Your task to perform on an android device: Search for usb-a to usb-b on amazon, select the first entry, add it to the cart, then select checkout. Image 0: 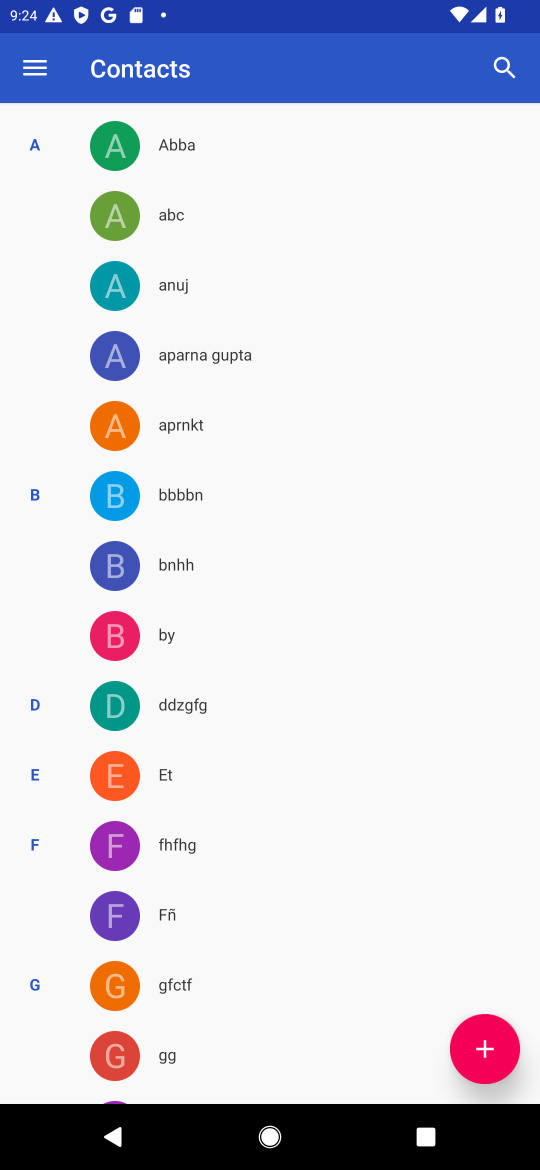
Step 0: press home button
Your task to perform on an android device: Search for usb-a to usb-b on amazon, select the first entry, add it to the cart, then select checkout. Image 1: 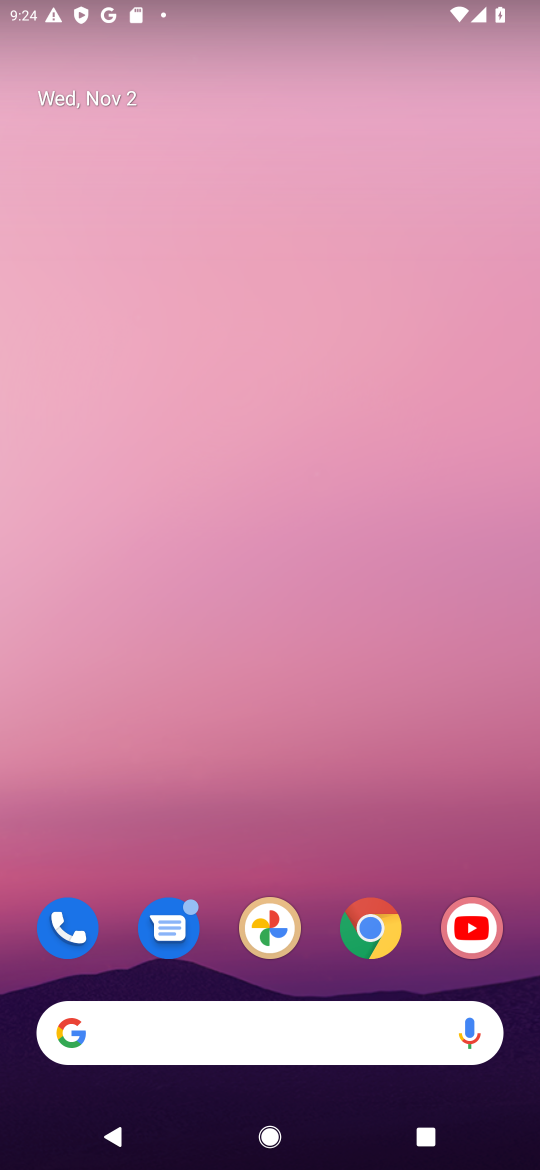
Step 1: click (381, 935)
Your task to perform on an android device: Search for usb-a to usb-b on amazon, select the first entry, add it to the cart, then select checkout. Image 2: 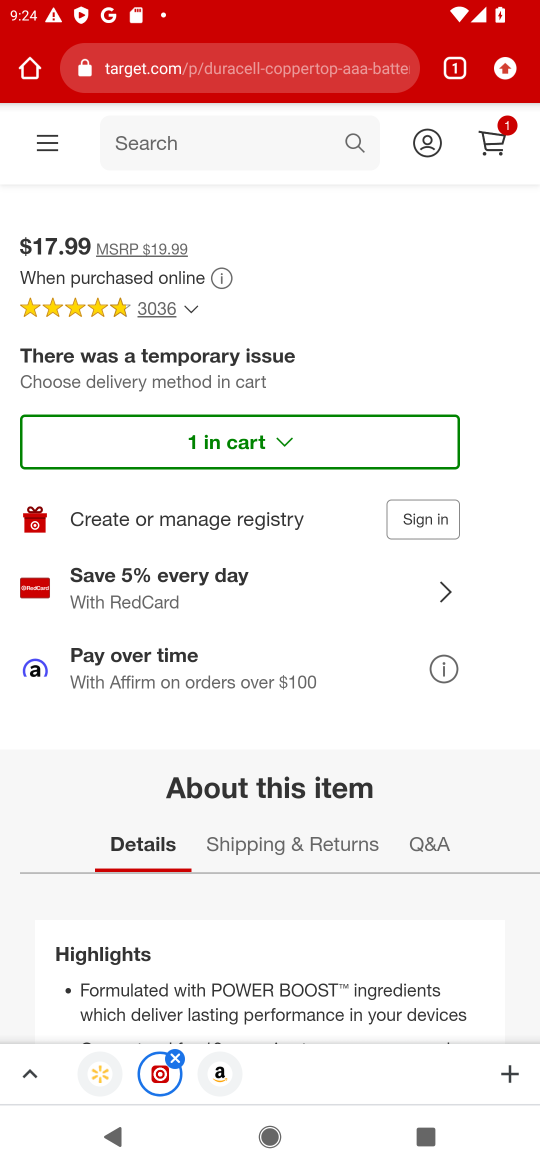
Step 2: click (140, 85)
Your task to perform on an android device: Search for usb-a to usb-b on amazon, select the first entry, add it to the cart, then select checkout. Image 3: 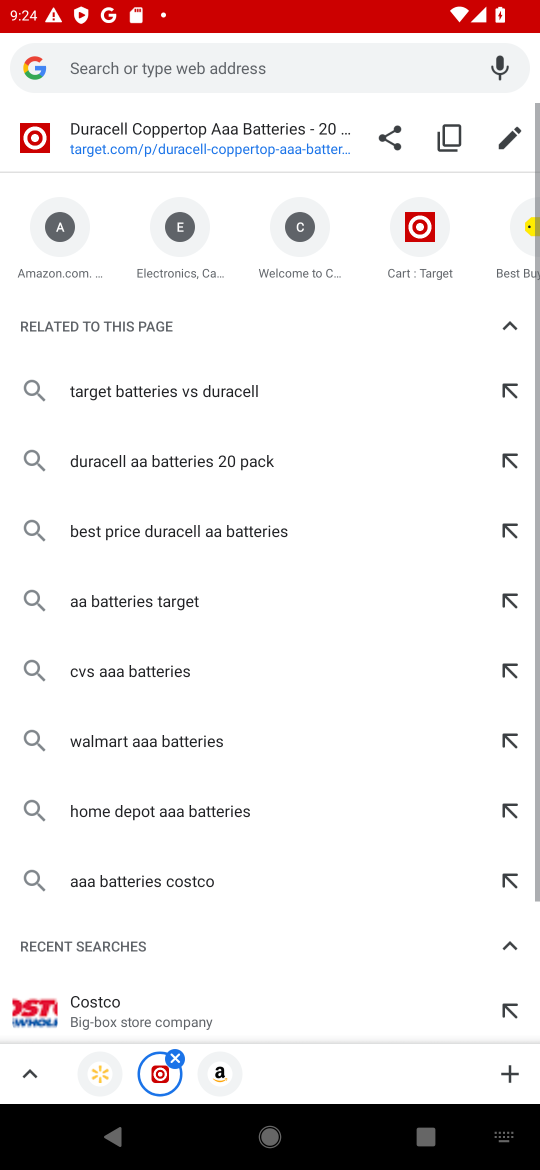
Step 3: type "amazon"
Your task to perform on an android device: Search for usb-a to usb-b on amazon, select the first entry, add it to the cart, then select checkout. Image 4: 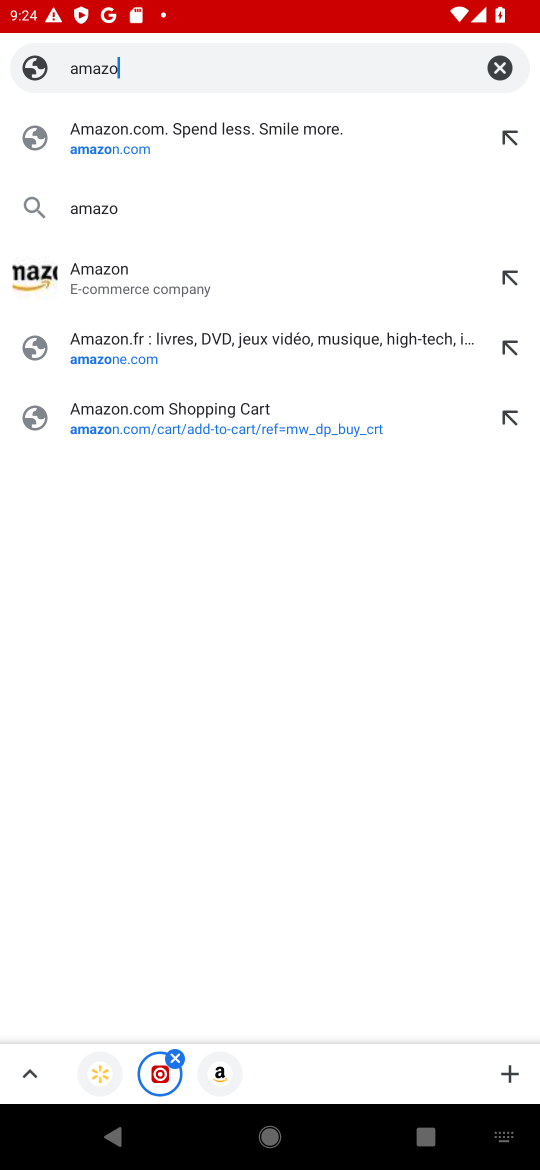
Step 4: type ""
Your task to perform on an android device: Search for usb-a to usb-b on amazon, select the first entry, add it to the cart, then select checkout. Image 5: 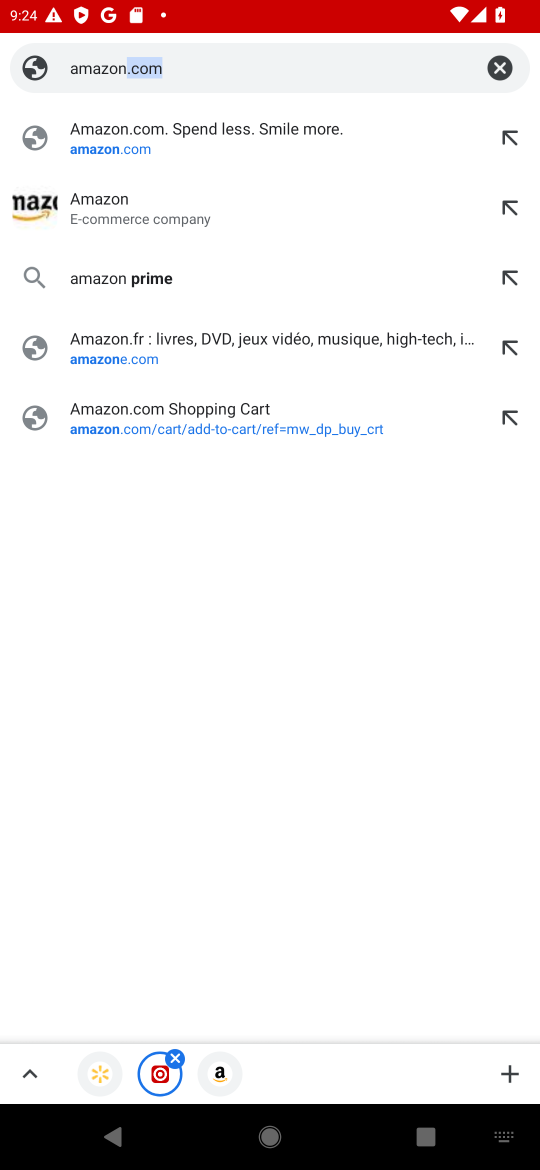
Step 5: click (235, 126)
Your task to perform on an android device: Search for usb-a to usb-b on amazon, select the first entry, add it to the cart, then select checkout. Image 6: 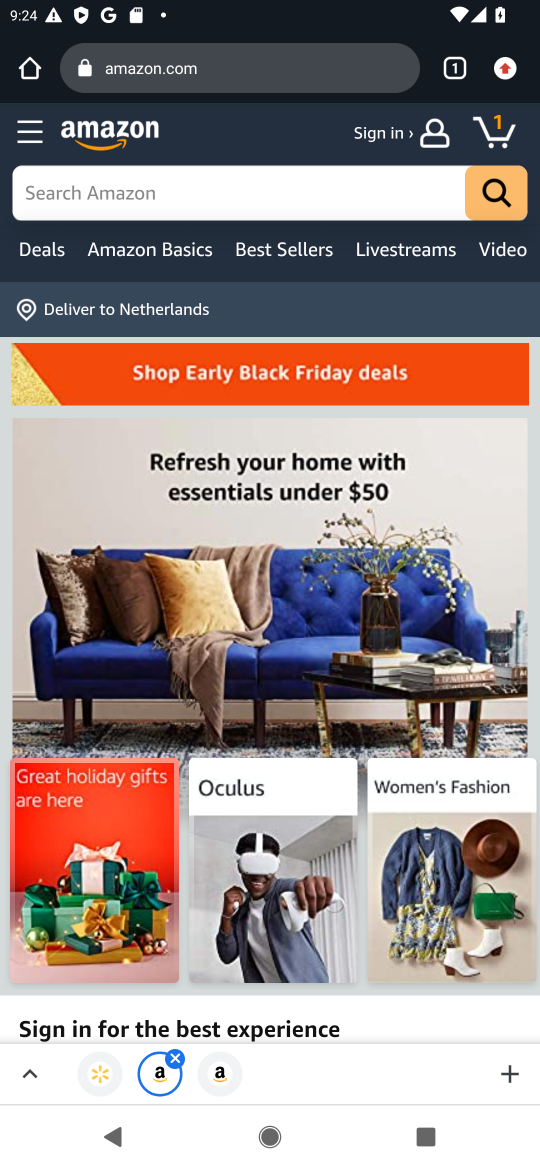
Step 6: click (245, 193)
Your task to perform on an android device: Search for usb-a to usb-b on amazon, select the first entry, add it to the cart, then select checkout. Image 7: 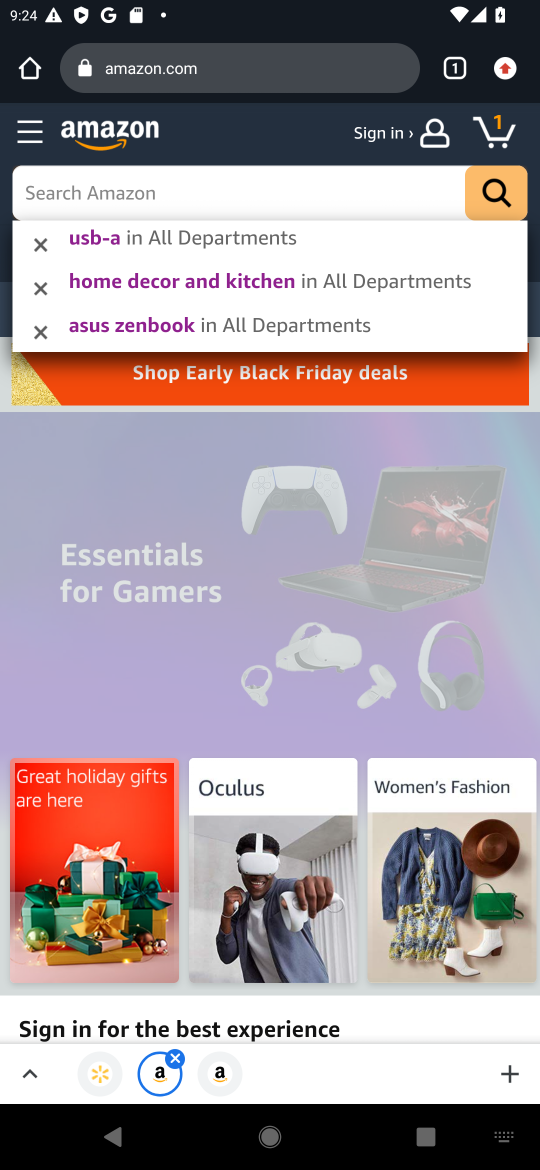
Step 7: type "usb-a to usb-b"
Your task to perform on an android device: Search for usb-a to usb-b on amazon, select the first entry, add it to the cart, then select checkout. Image 8: 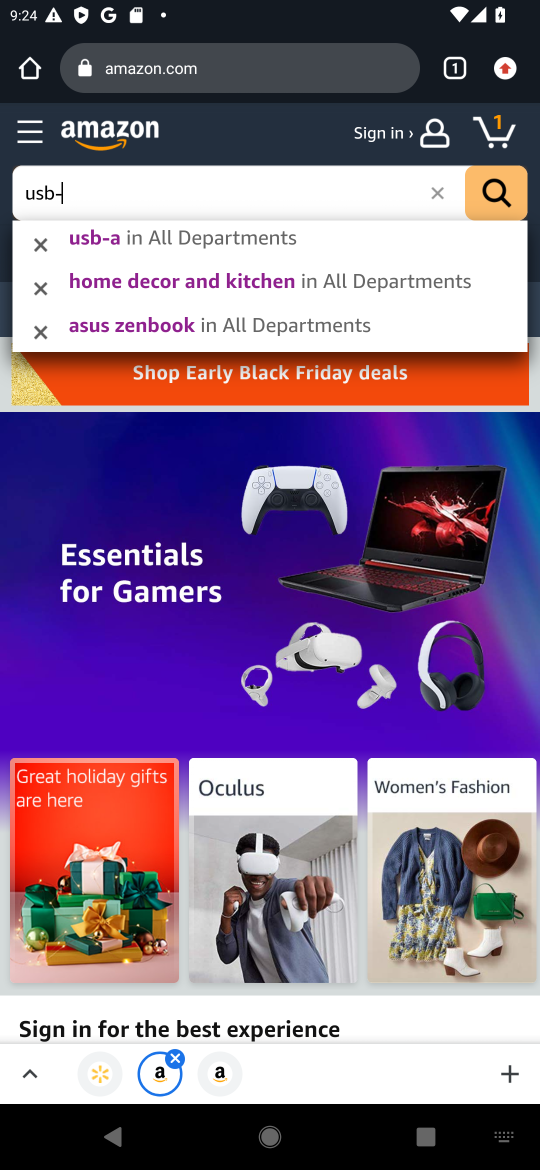
Step 8: type ""
Your task to perform on an android device: Search for usb-a to usb-b on amazon, select the first entry, add it to the cart, then select checkout. Image 9: 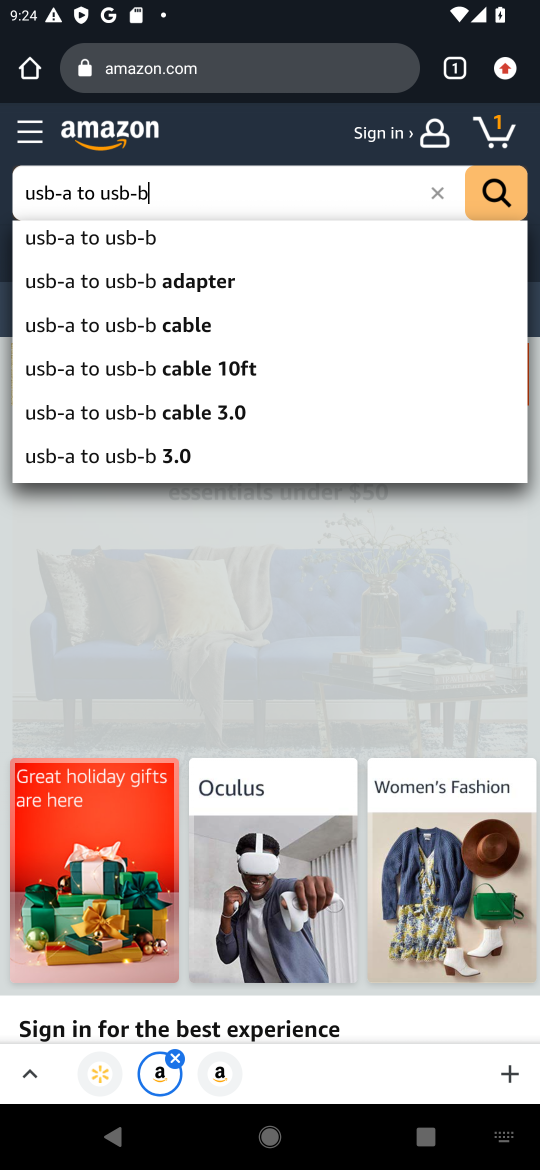
Step 9: click (515, 210)
Your task to perform on an android device: Search for usb-a to usb-b on amazon, select the first entry, add it to the cart, then select checkout. Image 10: 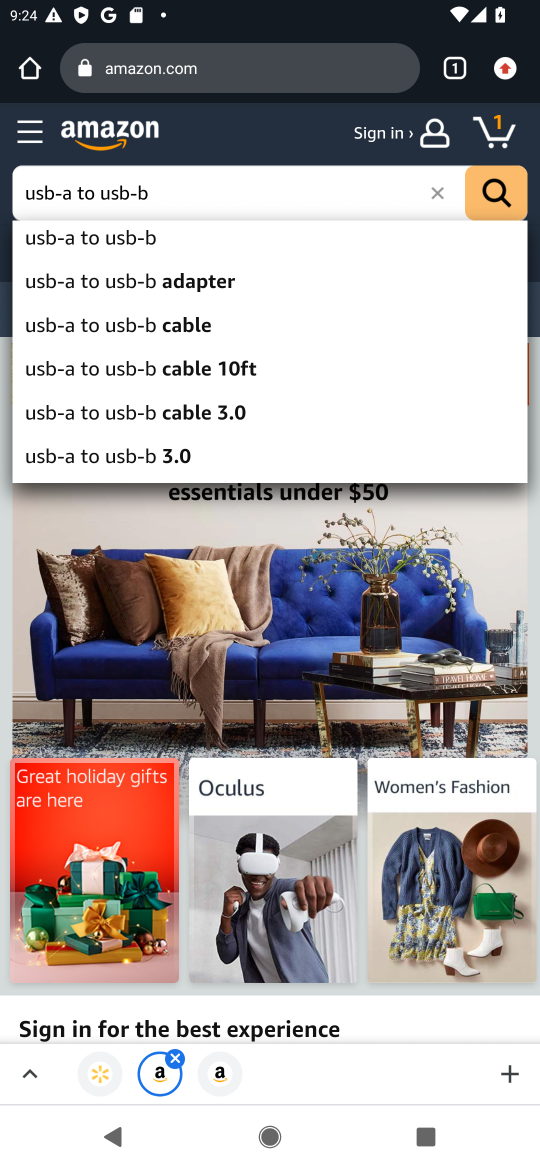
Step 10: click (505, 188)
Your task to perform on an android device: Search for usb-a to usb-b on amazon, select the first entry, add it to the cart, then select checkout. Image 11: 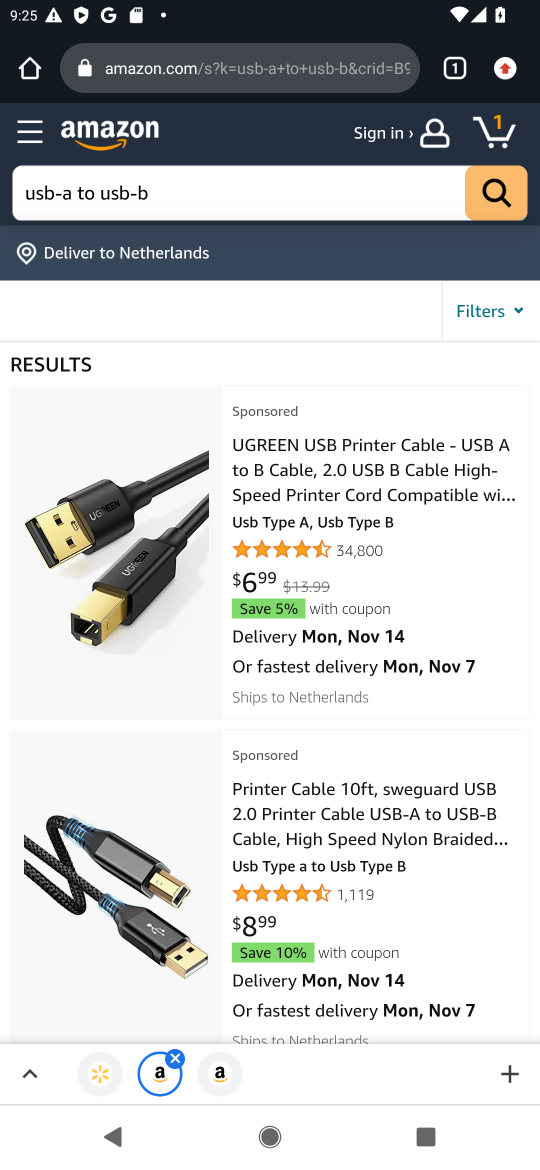
Step 11: click (353, 488)
Your task to perform on an android device: Search for usb-a to usb-b on amazon, select the first entry, add it to the cart, then select checkout. Image 12: 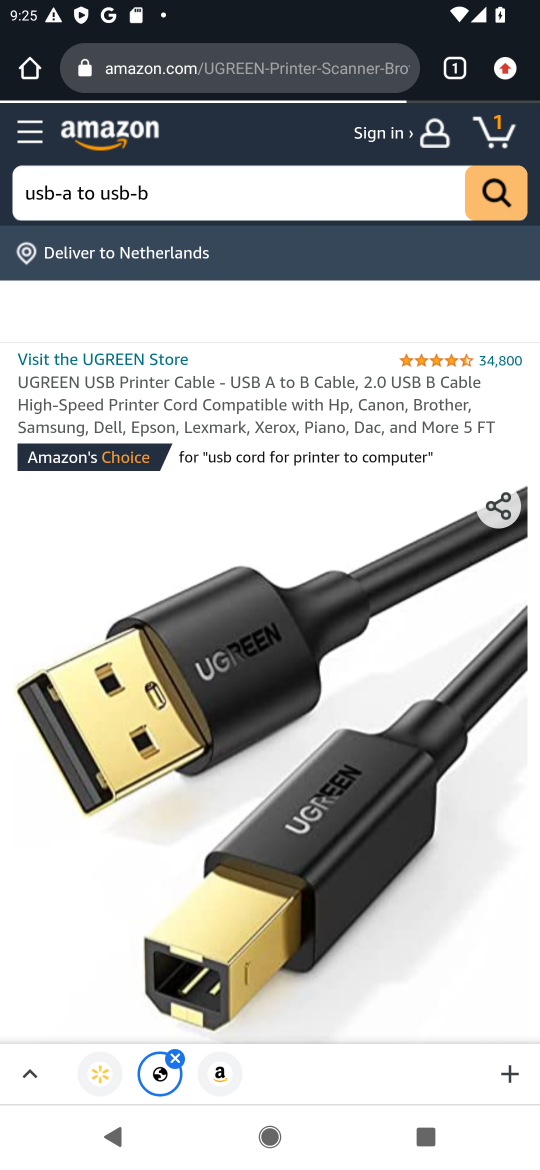
Step 12: drag from (305, 639) to (301, 490)
Your task to perform on an android device: Search for usb-a to usb-b on amazon, select the first entry, add it to the cart, then select checkout. Image 13: 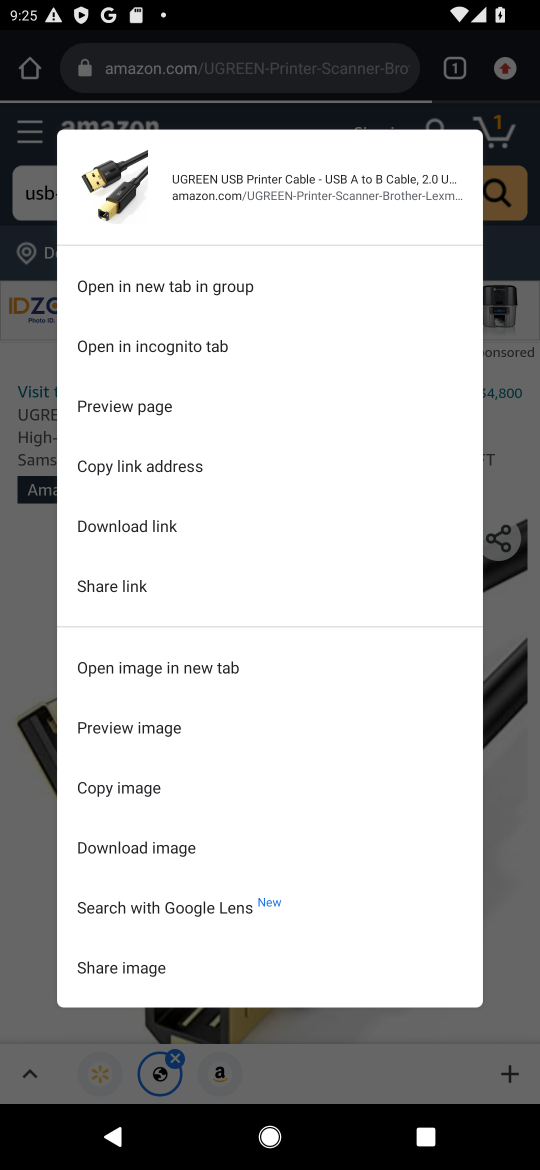
Step 13: drag from (321, 890) to (329, 487)
Your task to perform on an android device: Search for usb-a to usb-b on amazon, select the first entry, add it to the cart, then select checkout. Image 14: 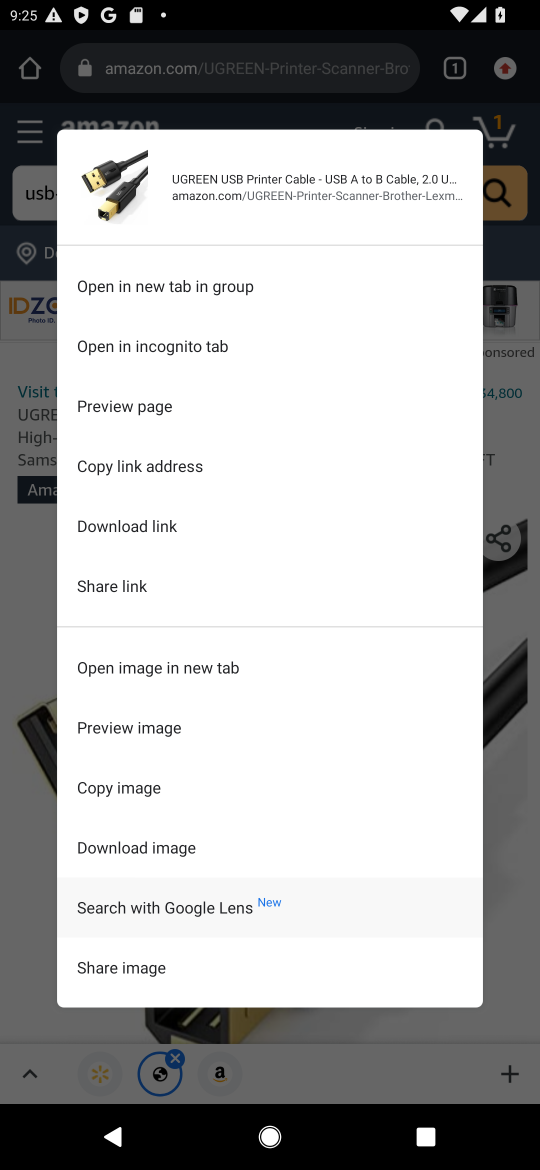
Step 14: click (296, 483)
Your task to perform on an android device: Search for usb-a to usb-b on amazon, select the first entry, add it to the cart, then select checkout. Image 15: 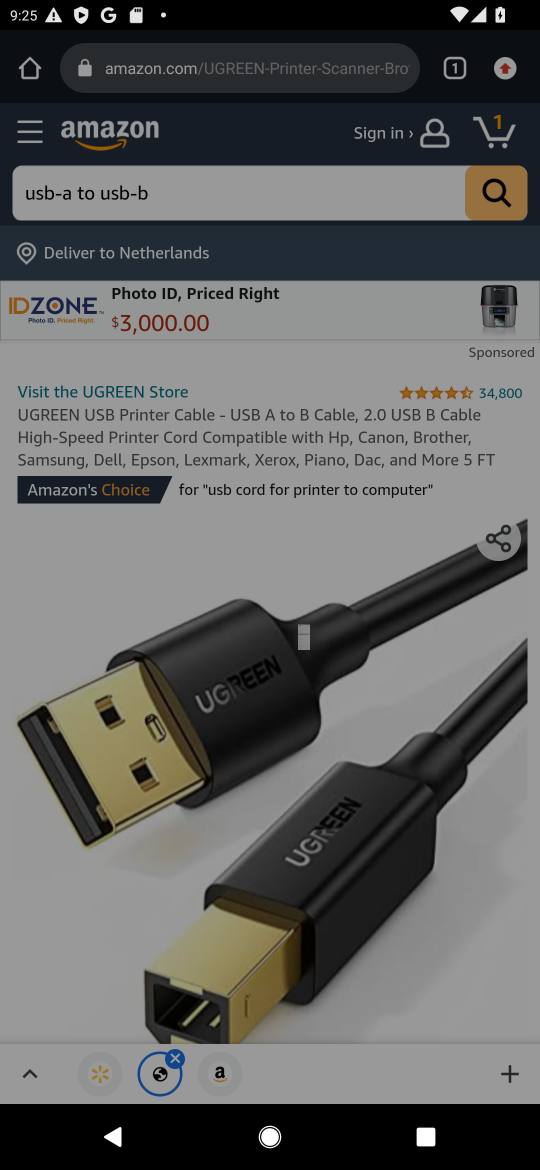
Step 15: click (485, 628)
Your task to perform on an android device: Search for usb-a to usb-b on amazon, select the first entry, add it to the cart, then select checkout. Image 16: 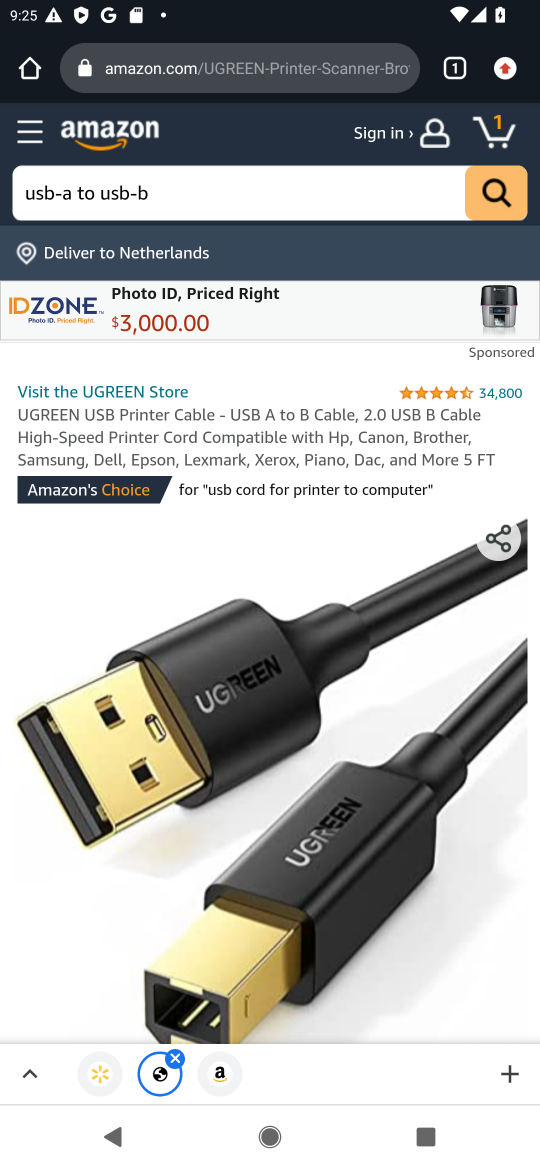
Step 16: drag from (416, 743) to (401, 370)
Your task to perform on an android device: Search for usb-a to usb-b on amazon, select the first entry, add it to the cart, then select checkout. Image 17: 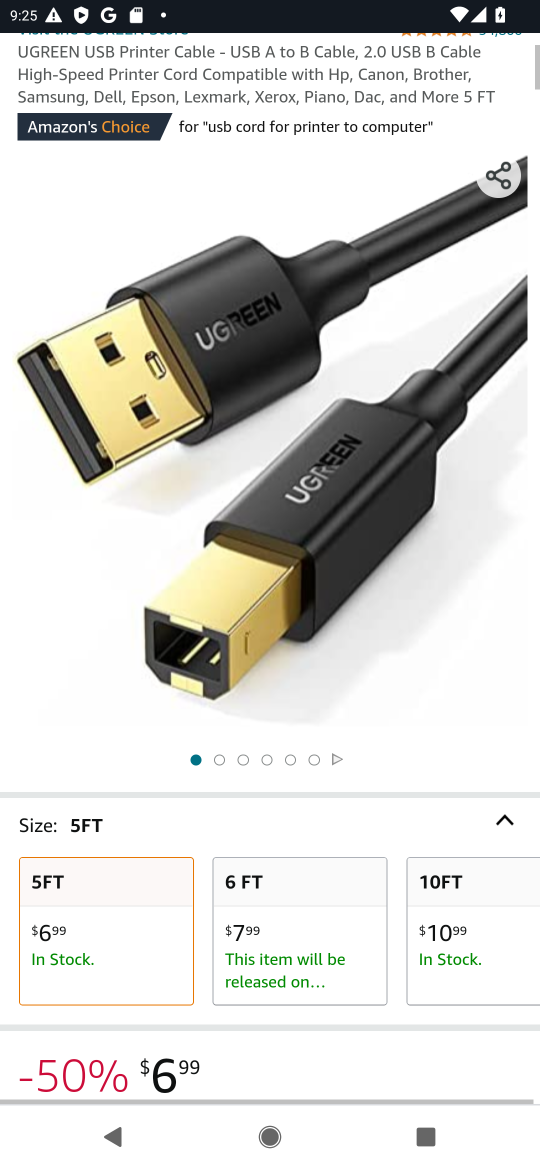
Step 17: drag from (370, 633) to (397, 273)
Your task to perform on an android device: Search for usb-a to usb-b on amazon, select the first entry, add it to the cart, then select checkout. Image 18: 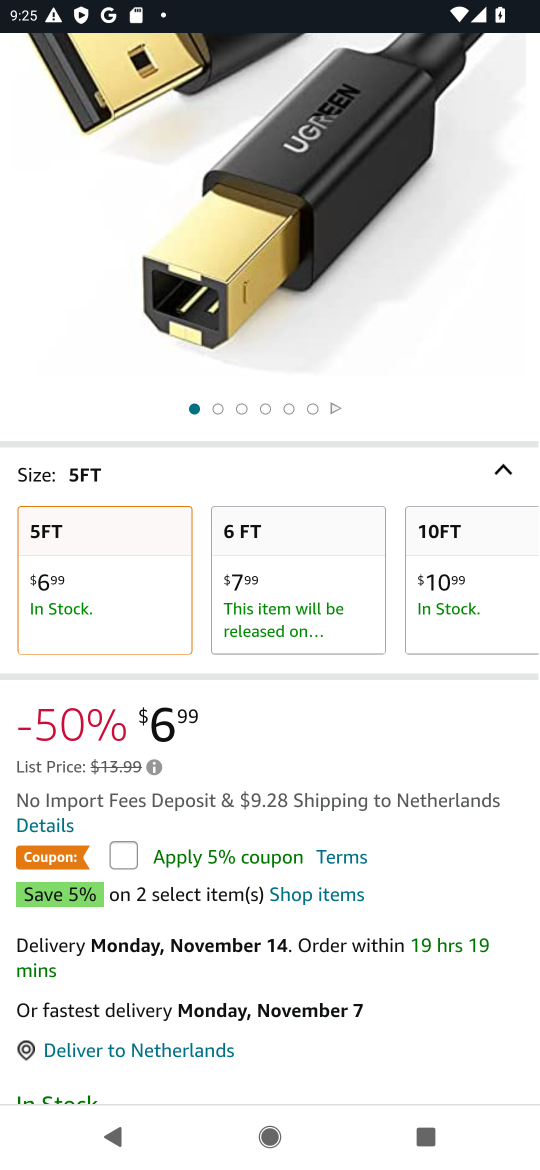
Step 18: drag from (298, 917) to (266, 291)
Your task to perform on an android device: Search for usb-a to usb-b on amazon, select the first entry, add it to the cart, then select checkout. Image 19: 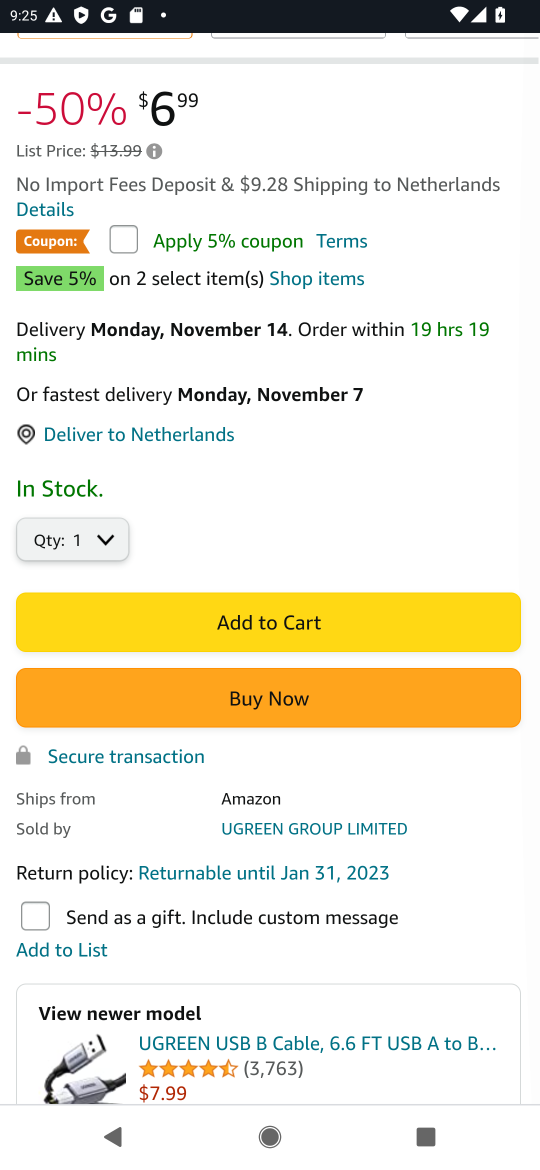
Step 19: drag from (212, 892) to (241, 400)
Your task to perform on an android device: Search for usb-a to usb-b on amazon, select the first entry, add it to the cart, then select checkout. Image 20: 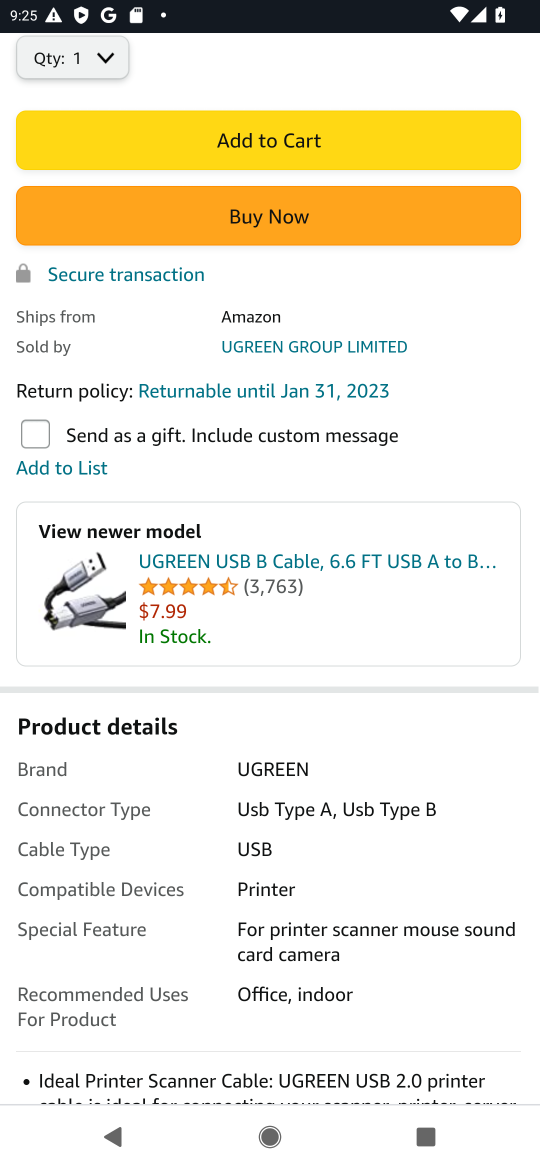
Step 20: click (230, 426)
Your task to perform on an android device: Search for usb-a to usb-b on amazon, select the first entry, add it to the cart, then select checkout. Image 21: 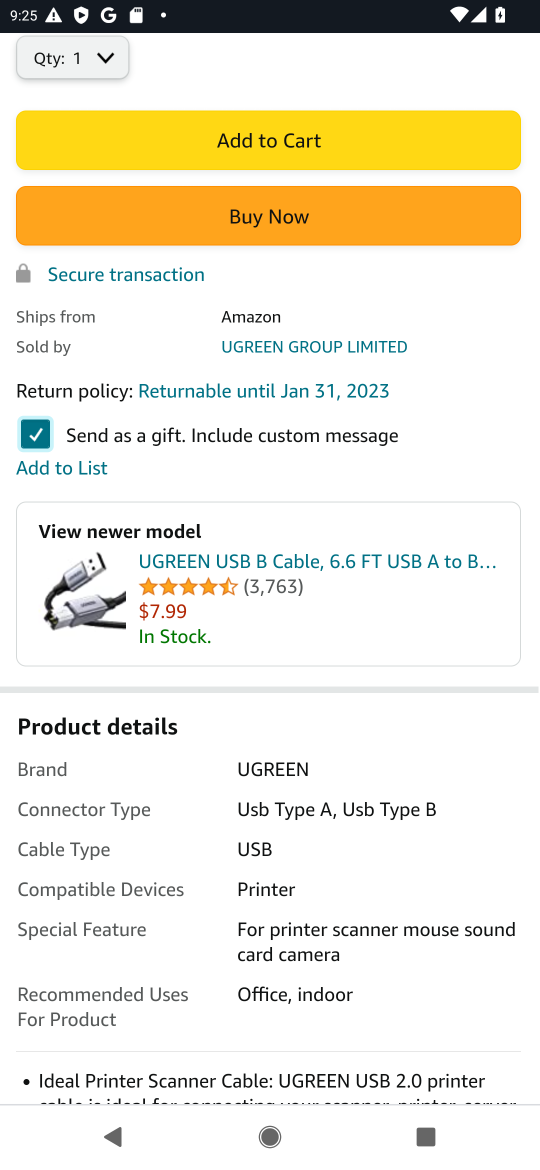
Step 21: click (238, 146)
Your task to perform on an android device: Search for usb-a to usb-b on amazon, select the first entry, add it to the cart, then select checkout. Image 22: 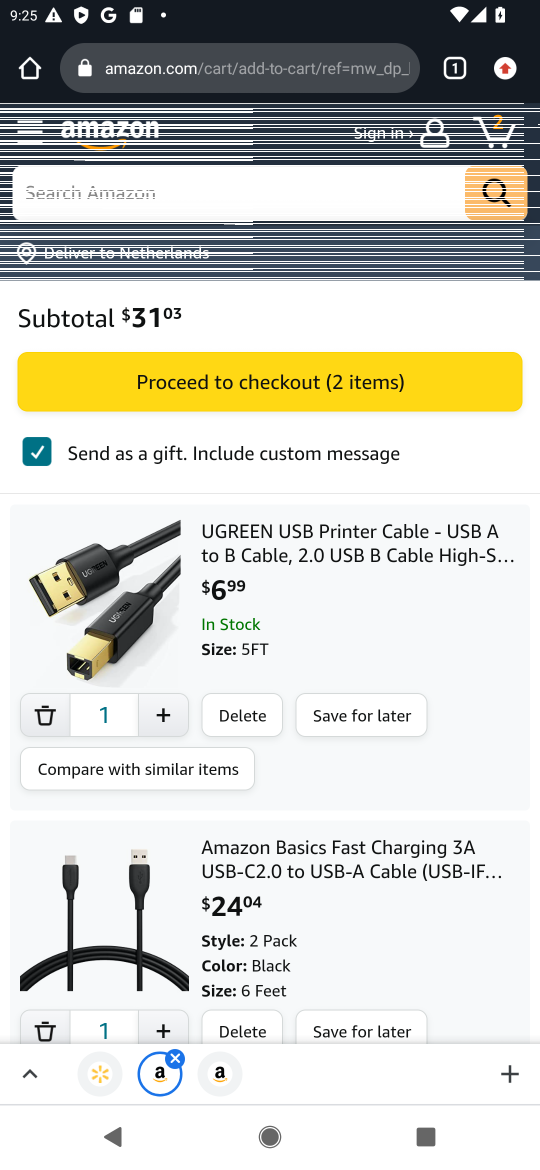
Step 22: click (400, 392)
Your task to perform on an android device: Search for usb-a to usb-b on amazon, select the first entry, add it to the cart, then select checkout. Image 23: 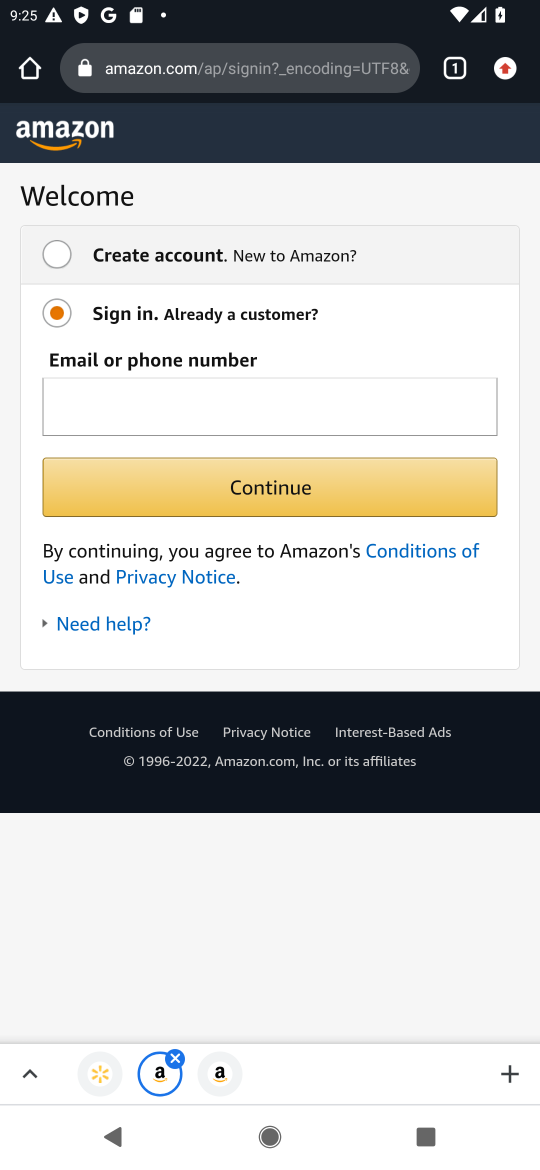
Step 23: task complete